Your task to perform on an android device: allow cookies in the chrome app Image 0: 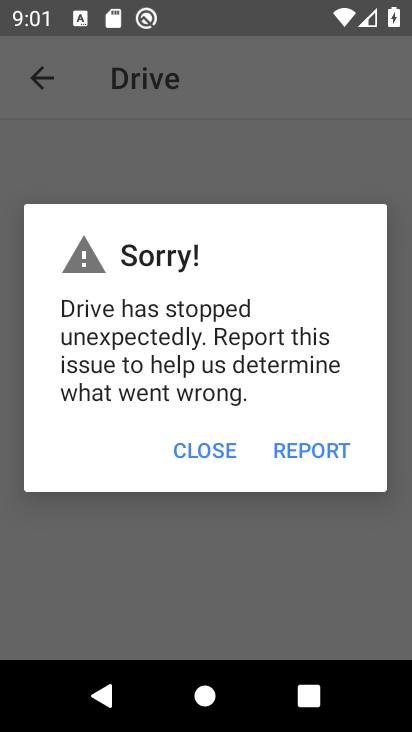
Step 0: press home button
Your task to perform on an android device: allow cookies in the chrome app Image 1: 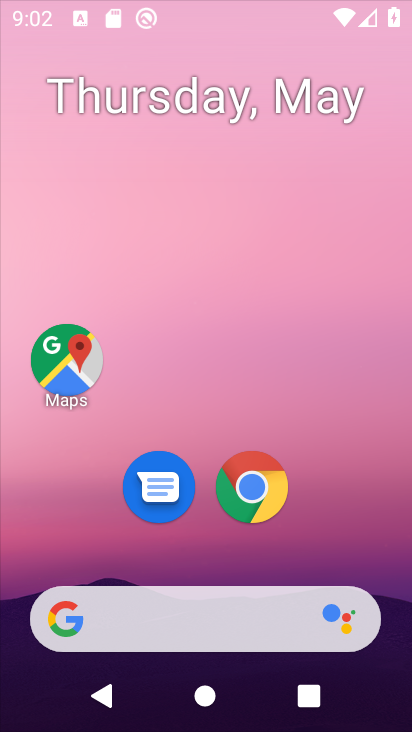
Step 1: press home button
Your task to perform on an android device: allow cookies in the chrome app Image 2: 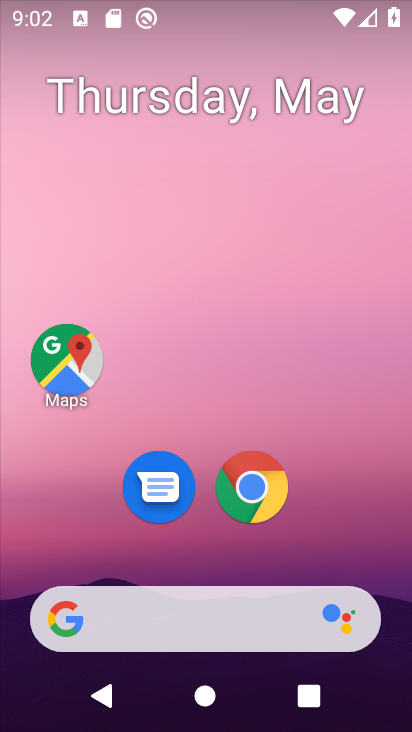
Step 2: click (249, 492)
Your task to perform on an android device: allow cookies in the chrome app Image 3: 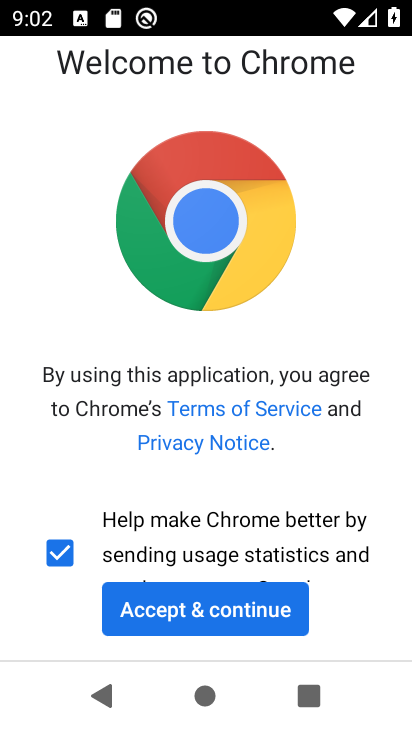
Step 3: click (186, 605)
Your task to perform on an android device: allow cookies in the chrome app Image 4: 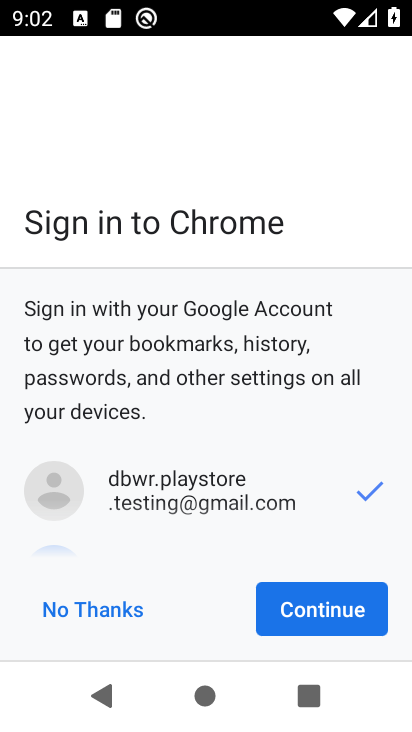
Step 4: click (281, 616)
Your task to perform on an android device: allow cookies in the chrome app Image 5: 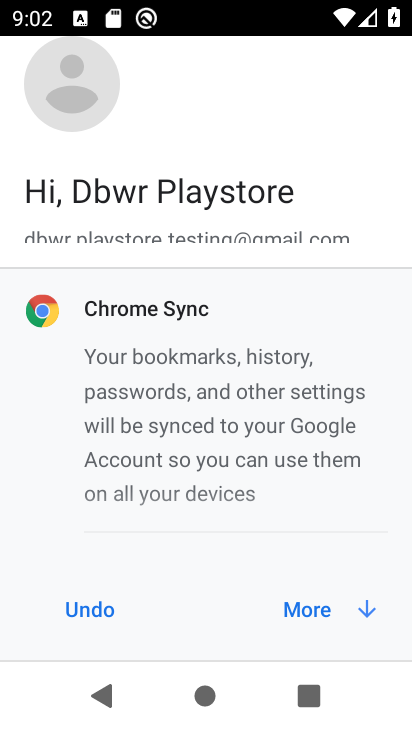
Step 5: click (292, 614)
Your task to perform on an android device: allow cookies in the chrome app Image 6: 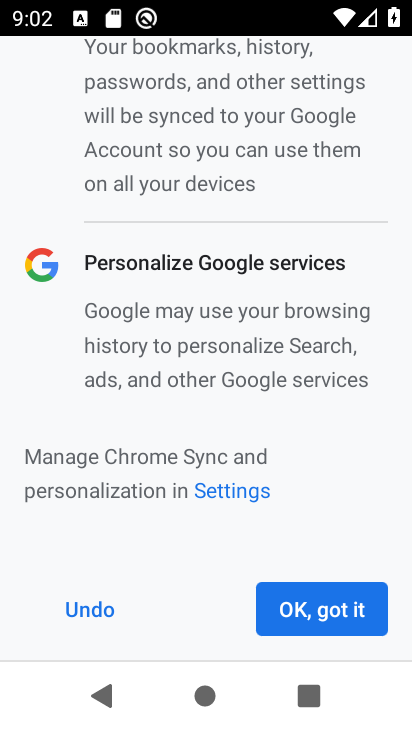
Step 6: click (292, 614)
Your task to perform on an android device: allow cookies in the chrome app Image 7: 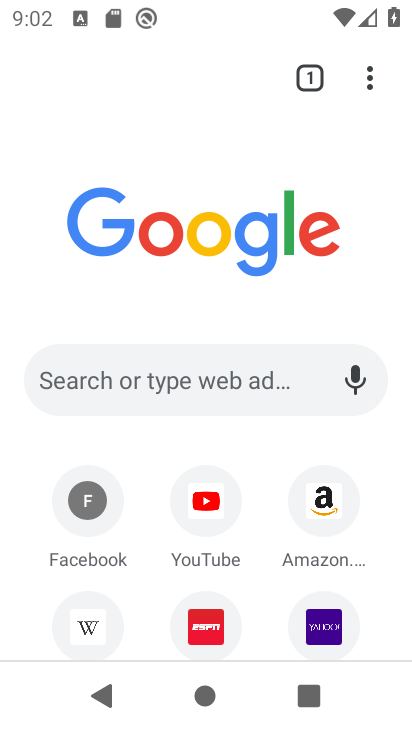
Step 7: click (371, 74)
Your task to perform on an android device: allow cookies in the chrome app Image 8: 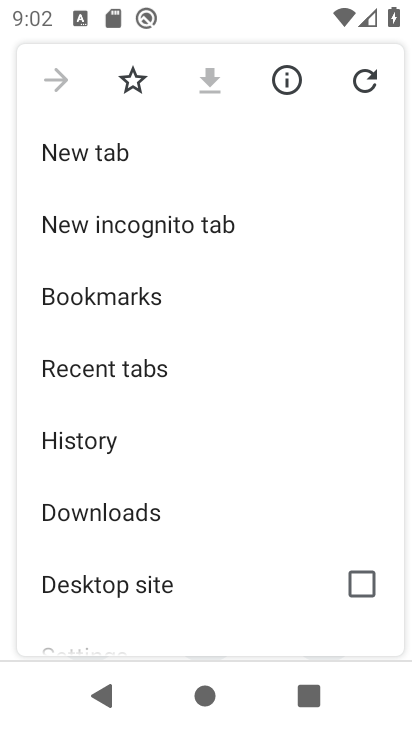
Step 8: click (160, 633)
Your task to perform on an android device: allow cookies in the chrome app Image 9: 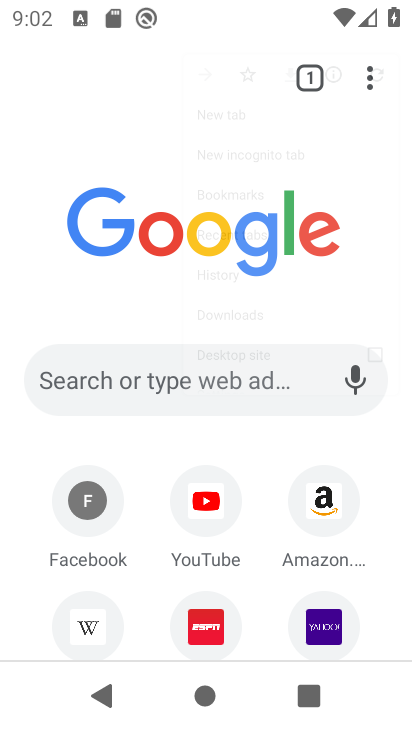
Step 9: drag from (160, 633) to (221, 161)
Your task to perform on an android device: allow cookies in the chrome app Image 10: 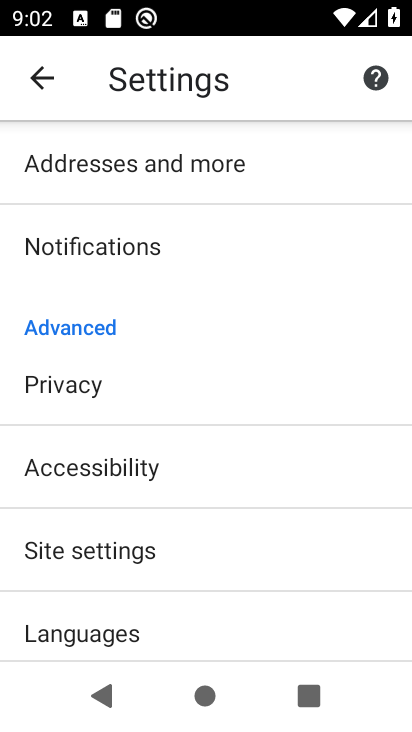
Step 10: drag from (147, 571) to (202, 132)
Your task to perform on an android device: allow cookies in the chrome app Image 11: 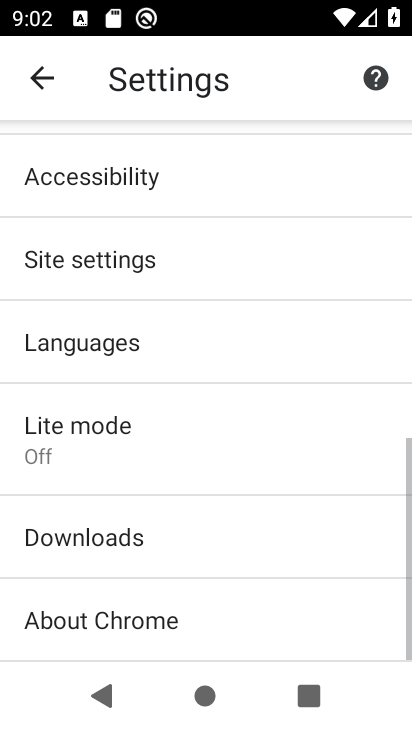
Step 11: click (138, 258)
Your task to perform on an android device: allow cookies in the chrome app Image 12: 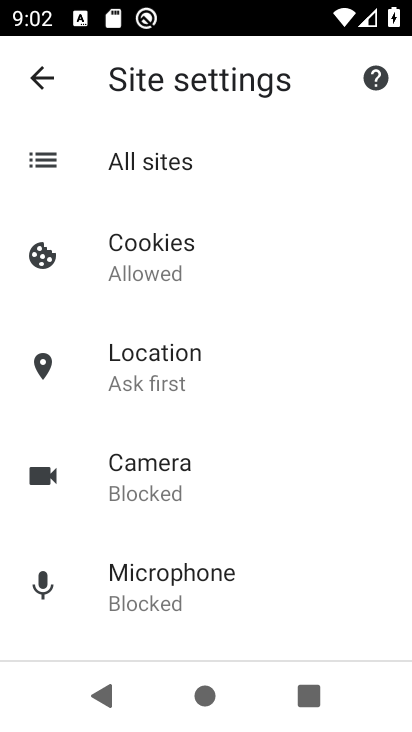
Step 12: click (138, 258)
Your task to perform on an android device: allow cookies in the chrome app Image 13: 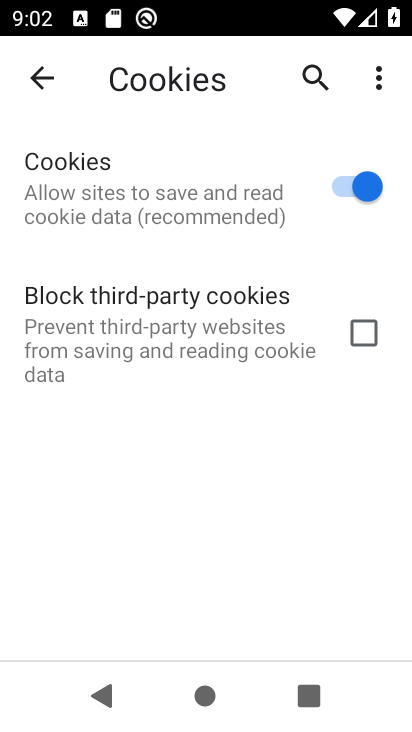
Step 13: task complete